Your task to perform on an android device: Search for Italian restaurants on Maps Image 0: 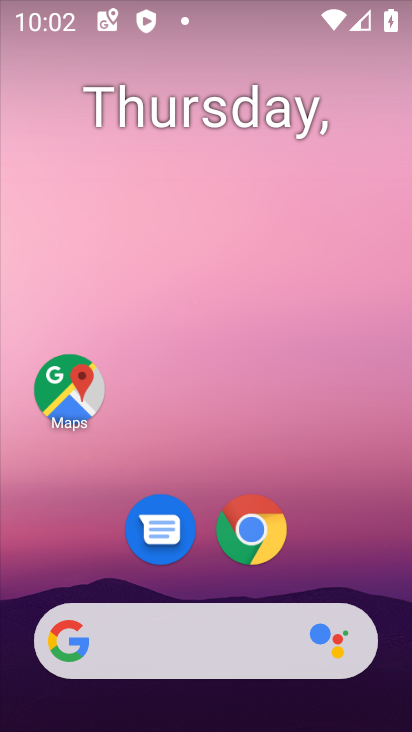
Step 0: click (64, 388)
Your task to perform on an android device: Search for Italian restaurants on Maps Image 1: 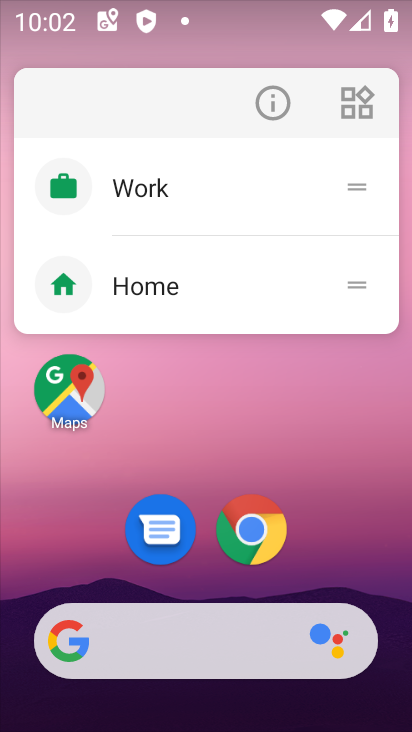
Step 1: click (64, 388)
Your task to perform on an android device: Search for Italian restaurants on Maps Image 2: 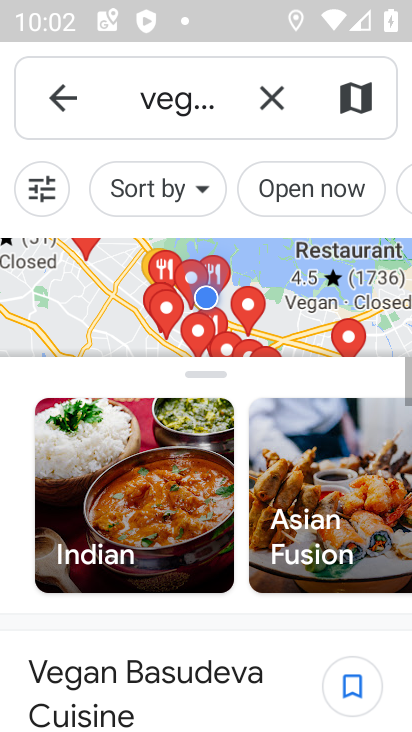
Step 2: click (258, 90)
Your task to perform on an android device: Search for Italian restaurants on Maps Image 3: 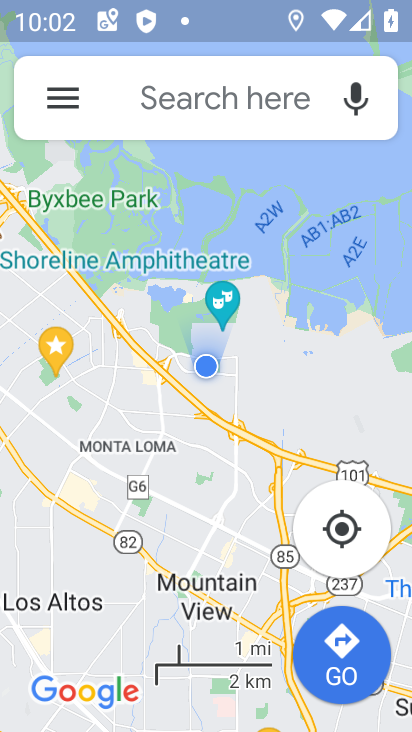
Step 3: click (163, 112)
Your task to perform on an android device: Search for Italian restaurants on Maps Image 4: 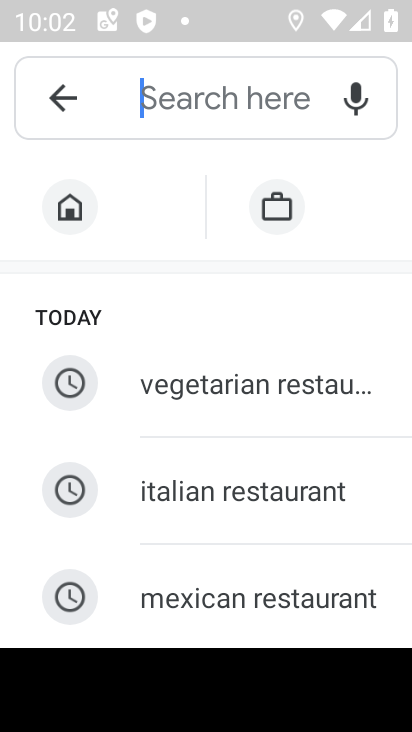
Step 4: type "italian restaurants"
Your task to perform on an android device: Search for Italian restaurants on Maps Image 5: 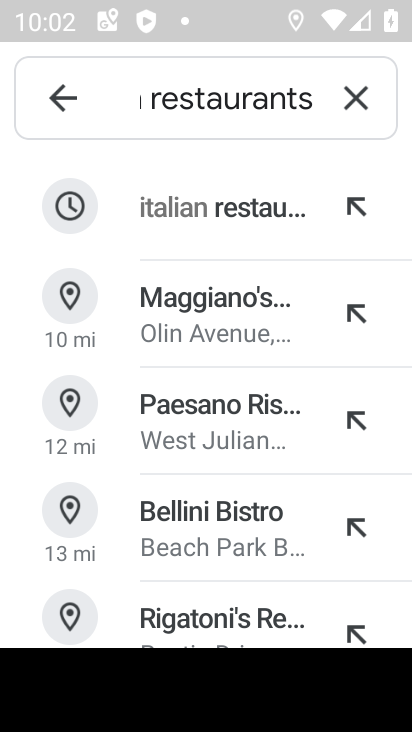
Step 5: click (253, 205)
Your task to perform on an android device: Search for Italian restaurants on Maps Image 6: 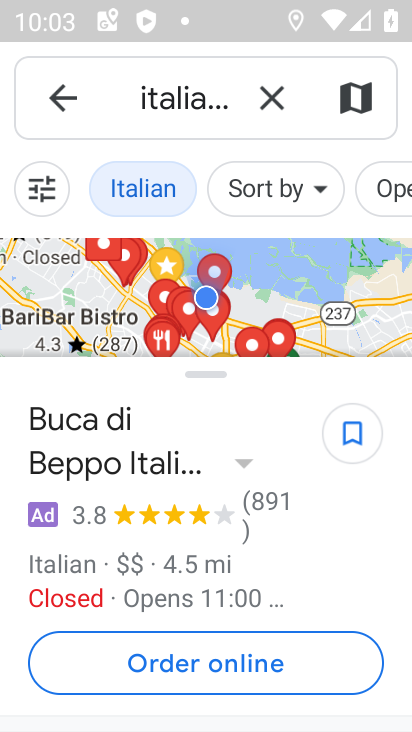
Step 6: task complete